Your task to perform on an android device: Go to Google Image 0: 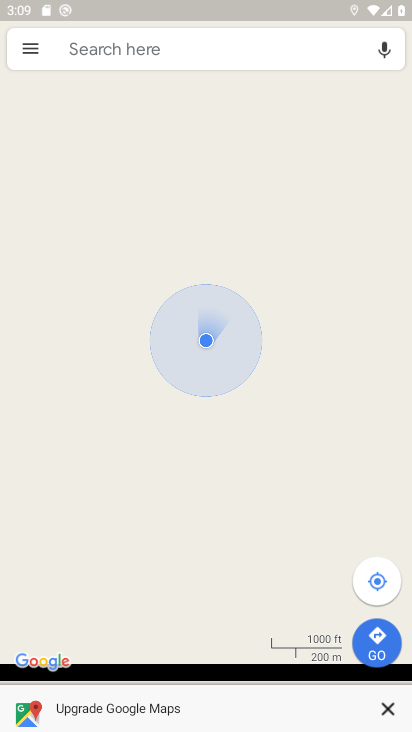
Step 0: press home button
Your task to perform on an android device: Go to Google Image 1: 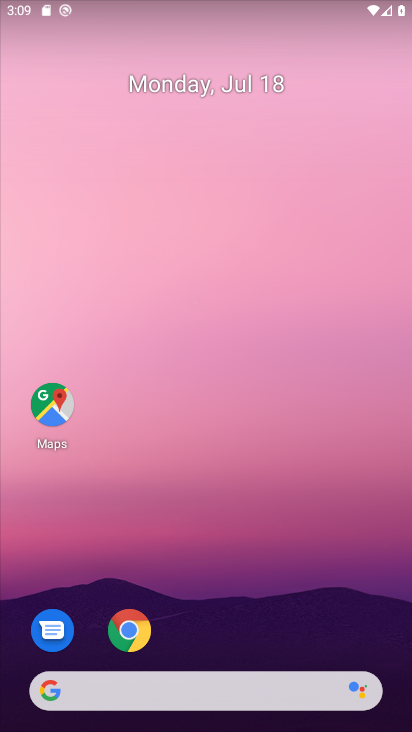
Step 1: drag from (286, 650) to (255, 125)
Your task to perform on an android device: Go to Google Image 2: 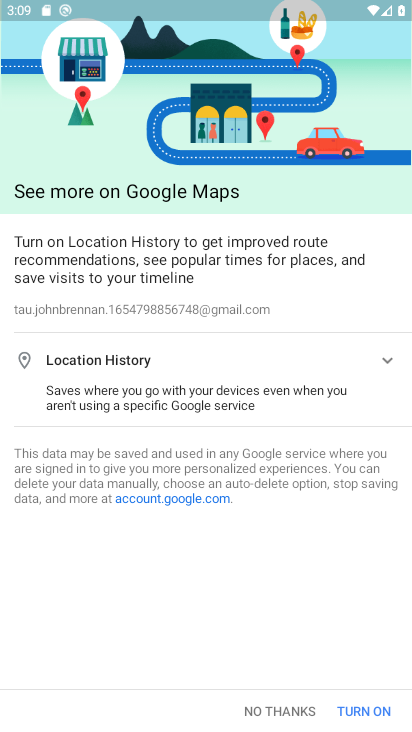
Step 2: press home button
Your task to perform on an android device: Go to Google Image 3: 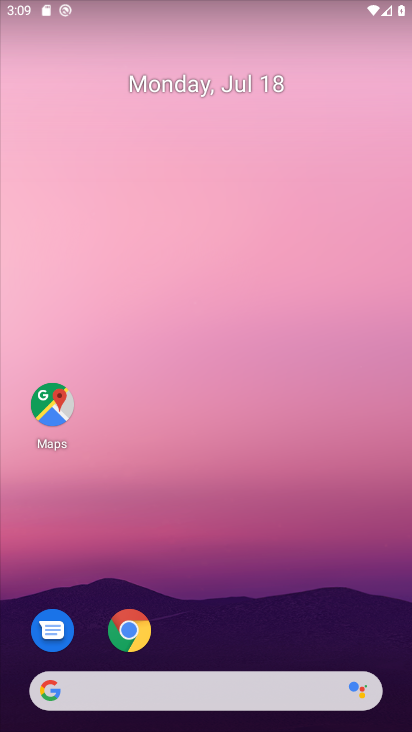
Step 3: drag from (300, 632) to (228, 171)
Your task to perform on an android device: Go to Google Image 4: 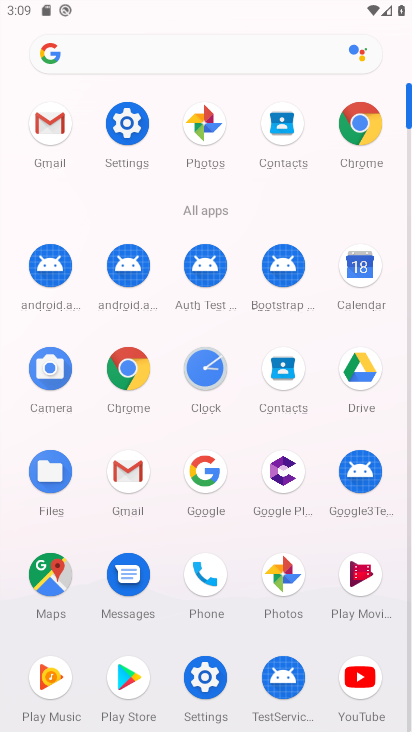
Step 4: click (215, 480)
Your task to perform on an android device: Go to Google Image 5: 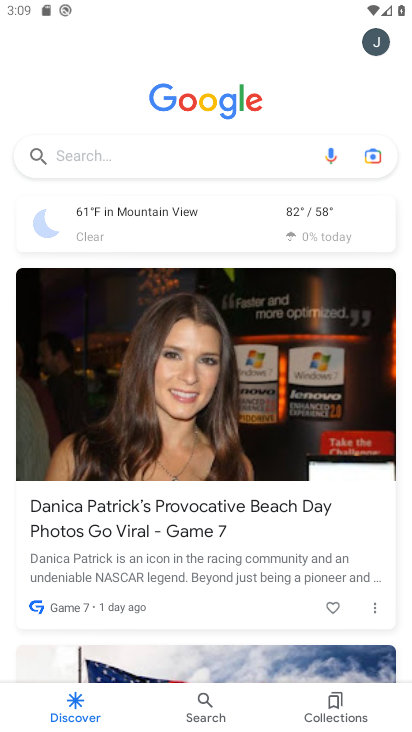
Step 5: task complete